Your task to perform on an android device: change timer sound Image 0: 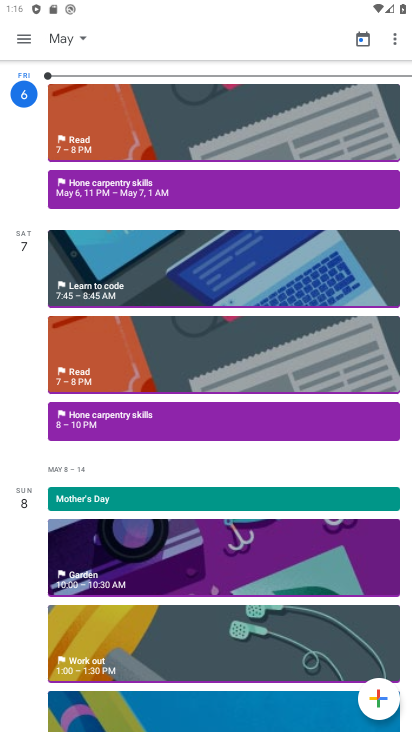
Step 0: press back button
Your task to perform on an android device: change timer sound Image 1: 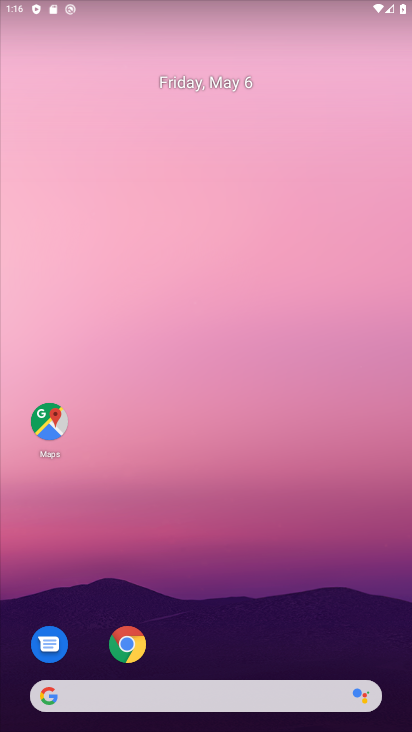
Step 1: drag from (240, 654) to (323, 47)
Your task to perform on an android device: change timer sound Image 2: 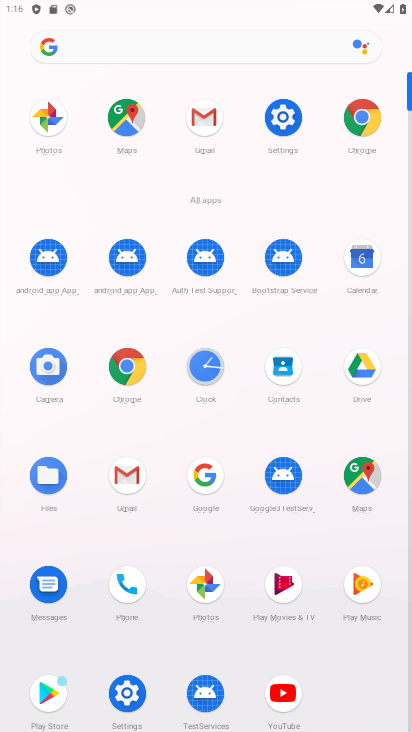
Step 2: click (203, 372)
Your task to perform on an android device: change timer sound Image 3: 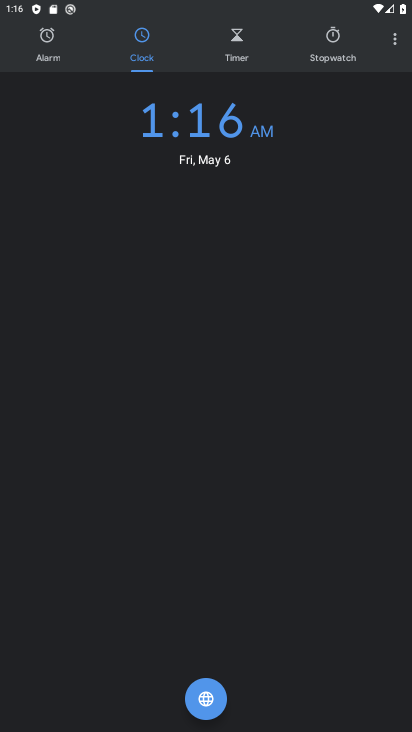
Step 3: drag from (394, 38) to (348, 173)
Your task to perform on an android device: change timer sound Image 4: 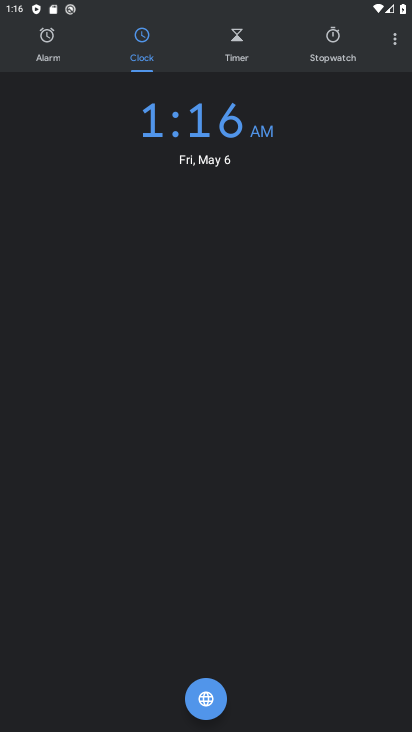
Step 4: click (394, 38)
Your task to perform on an android device: change timer sound Image 5: 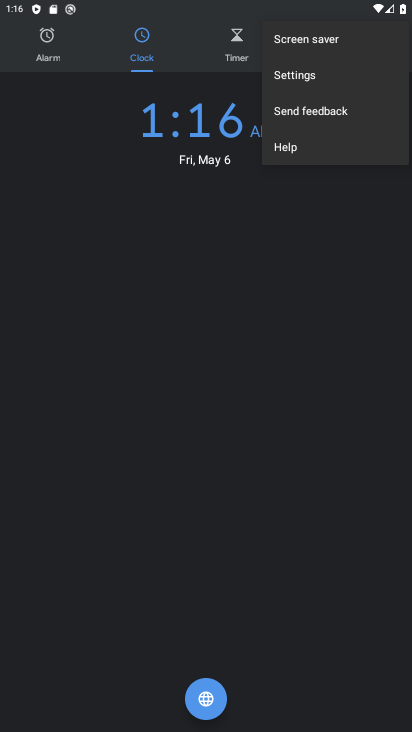
Step 5: click (319, 80)
Your task to perform on an android device: change timer sound Image 6: 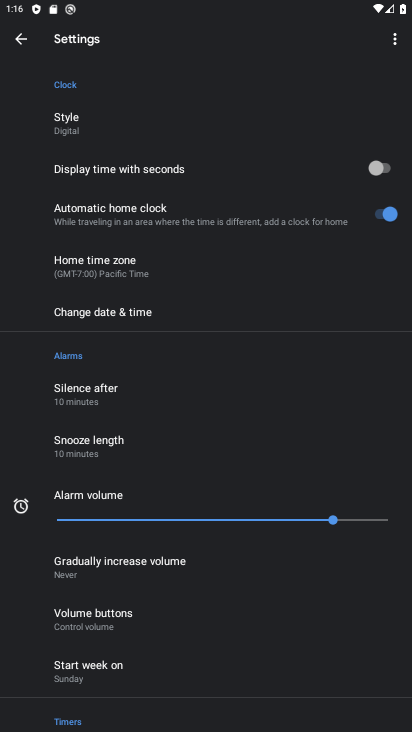
Step 6: drag from (138, 659) to (208, 359)
Your task to perform on an android device: change timer sound Image 7: 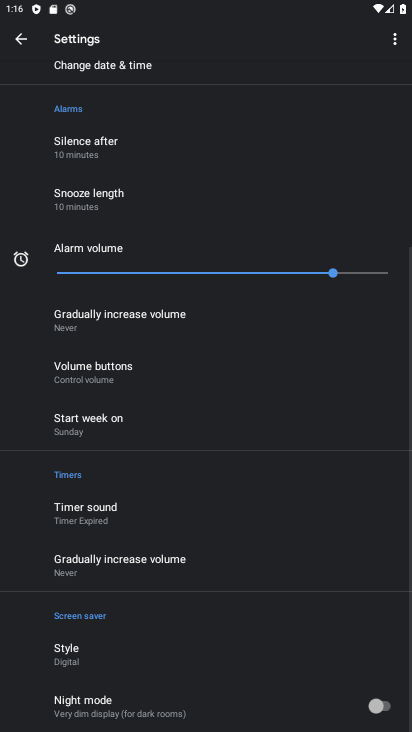
Step 7: click (147, 507)
Your task to perform on an android device: change timer sound Image 8: 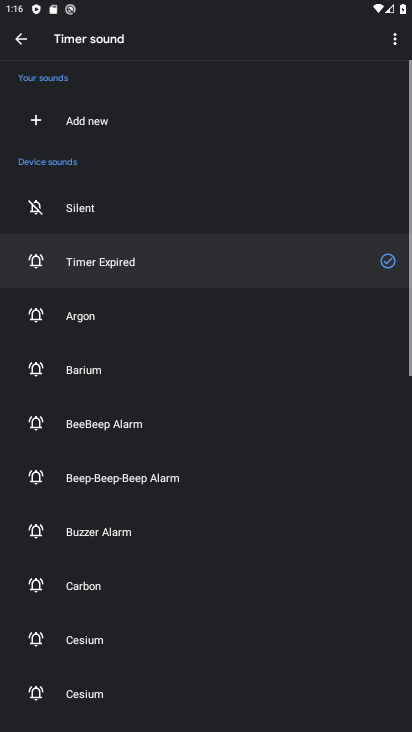
Step 8: click (81, 329)
Your task to perform on an android device: change timer sound Image 9: 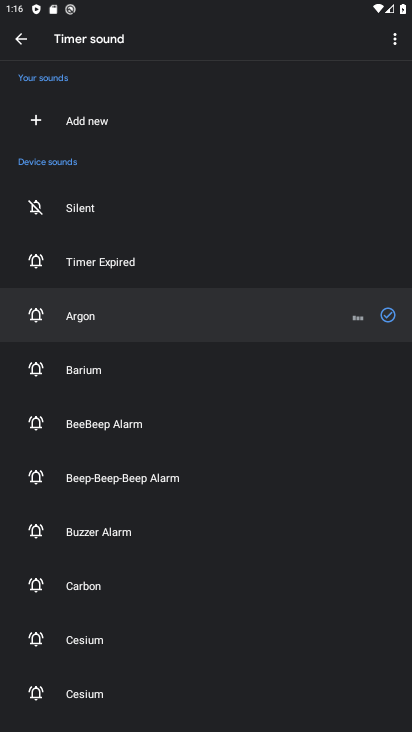
Step 9: task complete